Your task to perform on an android device: Open Yahoo.com Image 0: 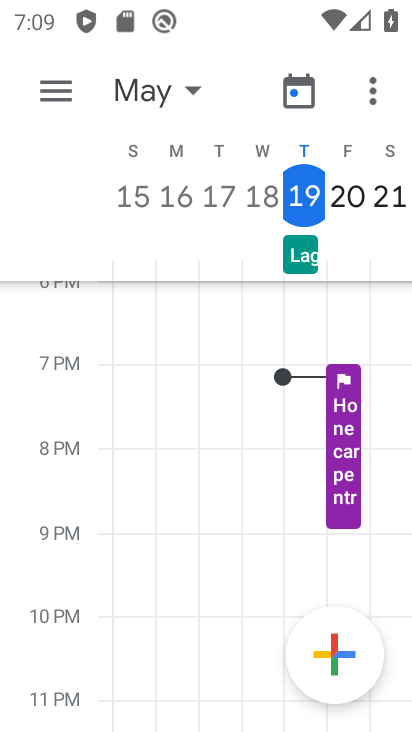
Step 0: press home button
Your task to perform on an android device: Open Yahoo.com Image 1: 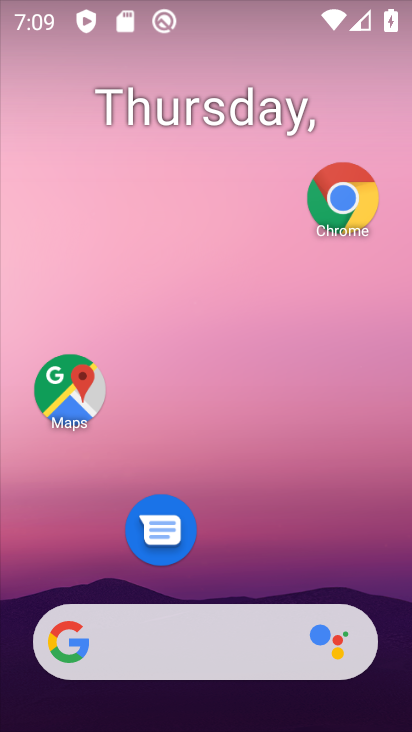
Step 1: drag from (289, 677) to (311, 180)
Your task to perform on an android device: Open Yahoo.com Image 2: 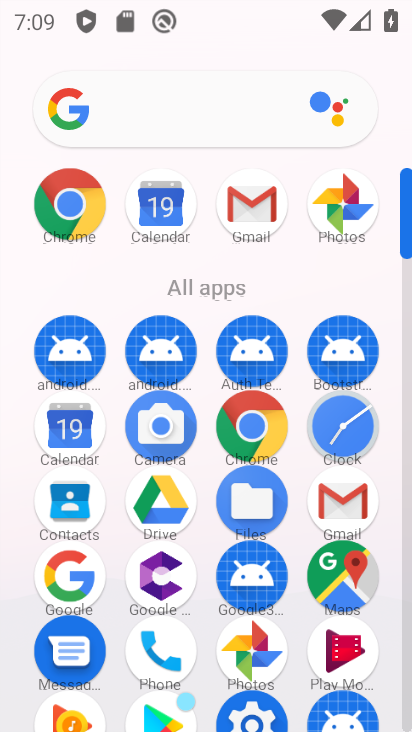
Step 2: click (55, 202)
Your task to perform on an android device: Open Yahoo.com Image 3: 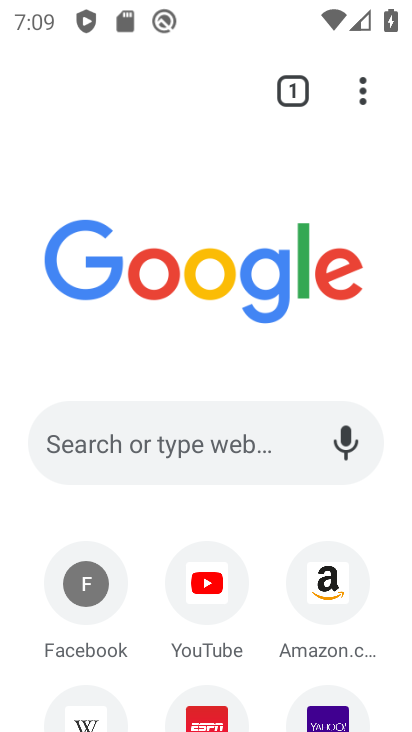
Step 3: click (341, 712)
Your task to perform on an android device: Open Yahoo.com Image 4: 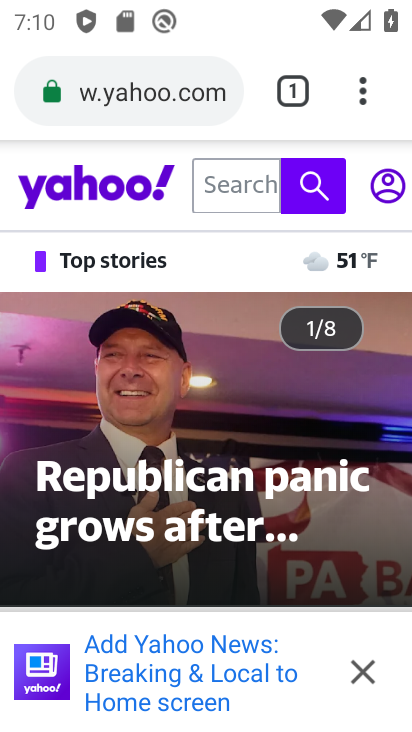
Step 4: click (166, 85)
Your task to perform on an android device: Open Yahoo.com Image 5: 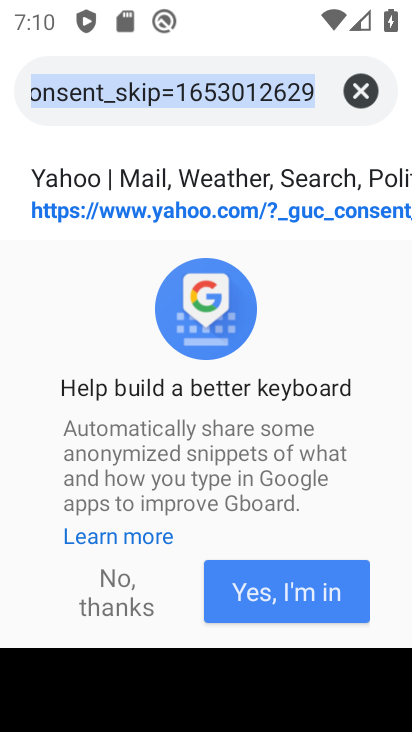
Step 5: click (125, 577)
Your task to perform on an android device: Open Yahoo.com Image 6: 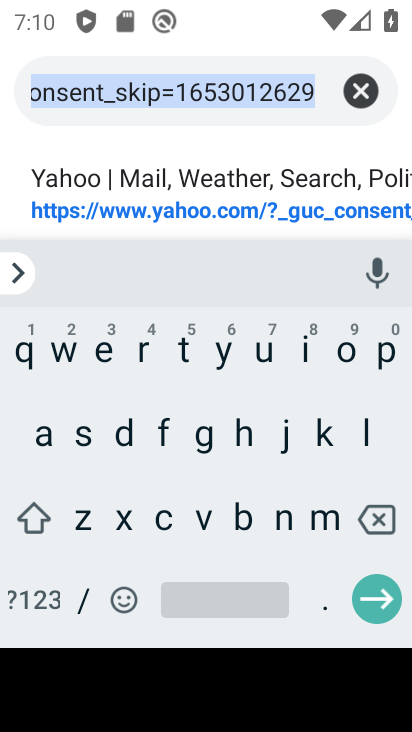
Step 6: click (358, 83)
Your task to perform on an android device: Open Yahoo.com Image 7: 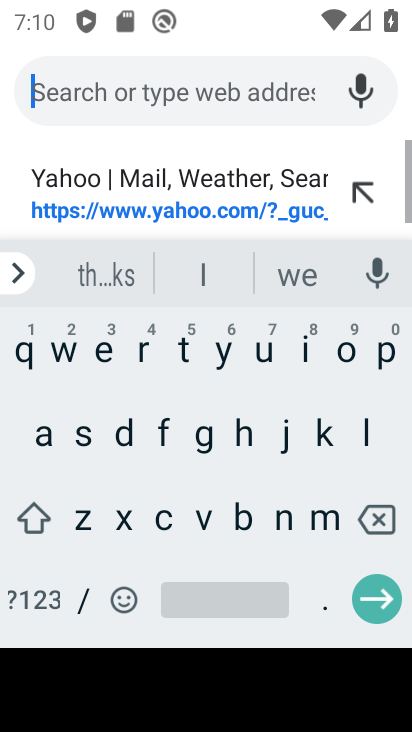
Step 7: click (215, 348)
Your task to perform on an android device: Open Yahoo.com Image 8: 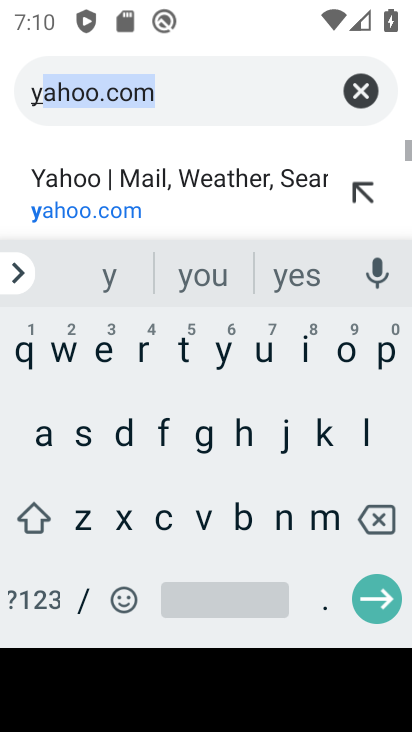
Step 8: click (41, 428)
Your task to perform on an android device: Open Yahoo.com Image 9: 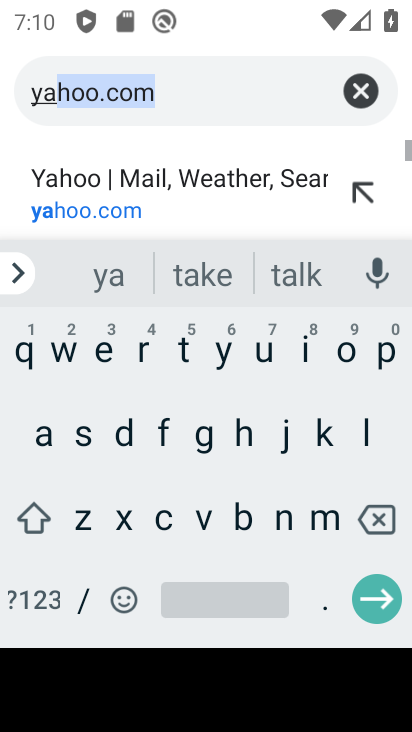
Step 9: click (112, 214)
Your task to perform on an android device: Open Yahoo.com Image 10: 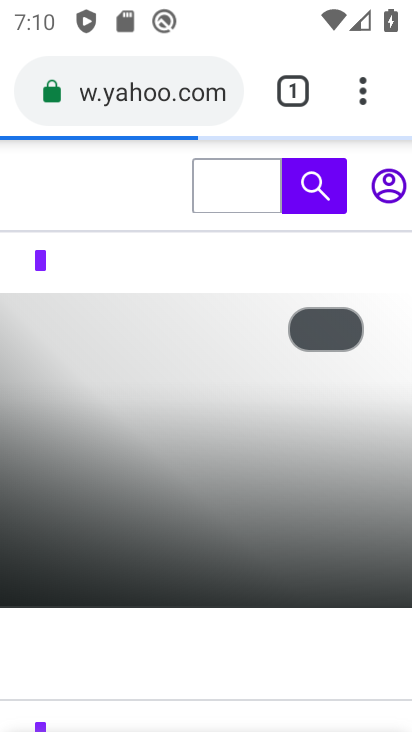
Step 10: task complete